Your task to perform on an android device: move an email to a new category in the gmail app Image 0: 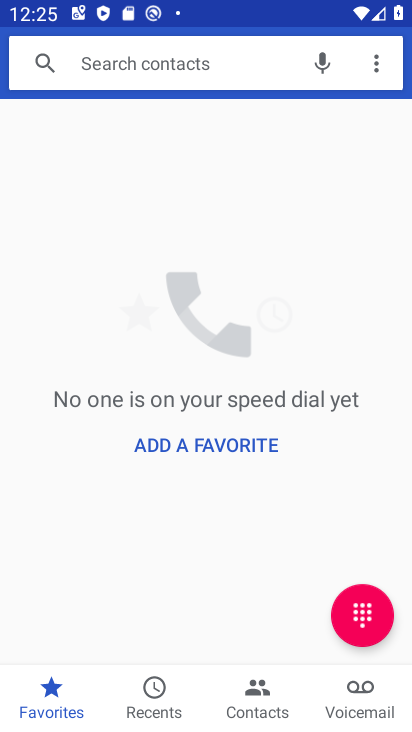
Step 0: press home button
Your task to perform on an android device: move an email to a new category in the gmail app Image 1: 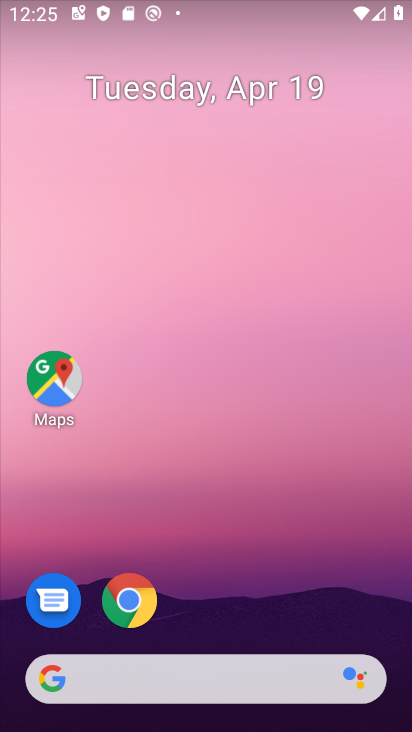
Step 1: drag from (222, 641) to (199, 36)
Your task to perform on an android device: move an email to a new category in the gmail app Image 2: 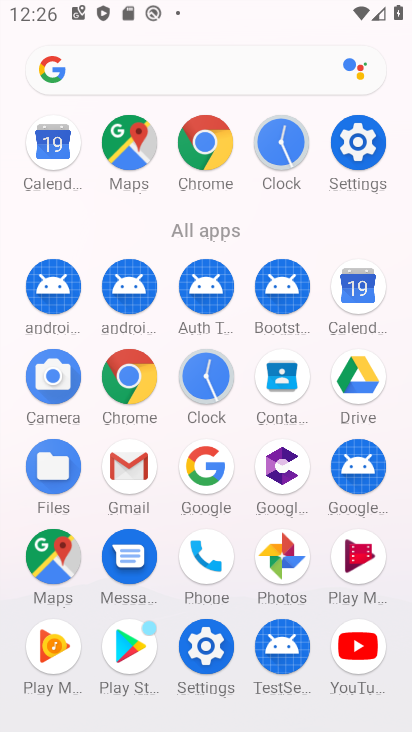
Step 2: click (133, 469)
Your task to perform on an android device: move an email to a new category in the gmail app Image 3: 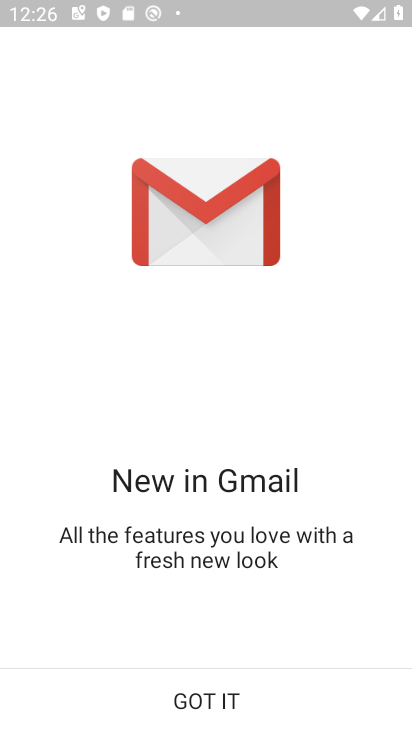
Step 3: click (193, 693)
Your task to perform on an android device: move an email to a new category in the gmail app Image 4: 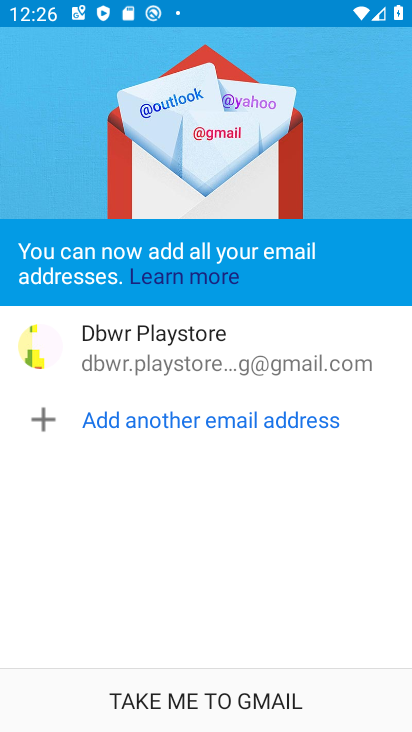
Step 4: click (189, 690)
Your task to perform on an android device: move an email to a new category in the gmail app Image 5: 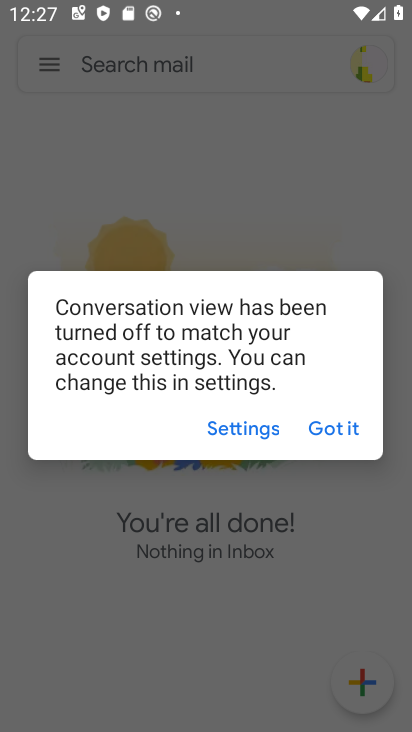
Step 5: click (322, 430)
Your task to perform on an android device: move an email to a new category in the gmail app Image 6: 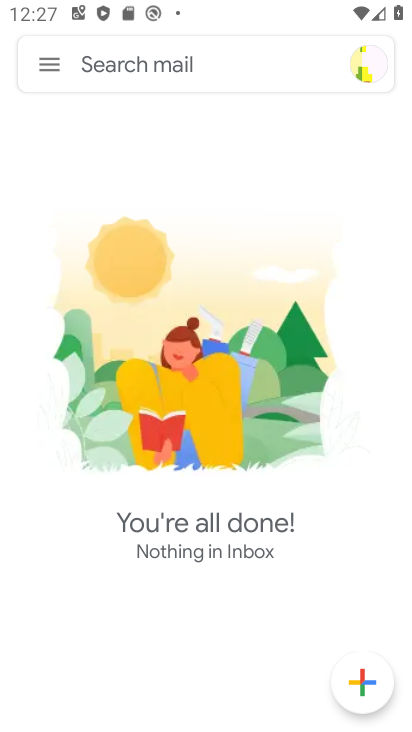
Step 6: click (49, 53)
Your task to perform on an android device: move an email to a new category in the gmail app Image 7: 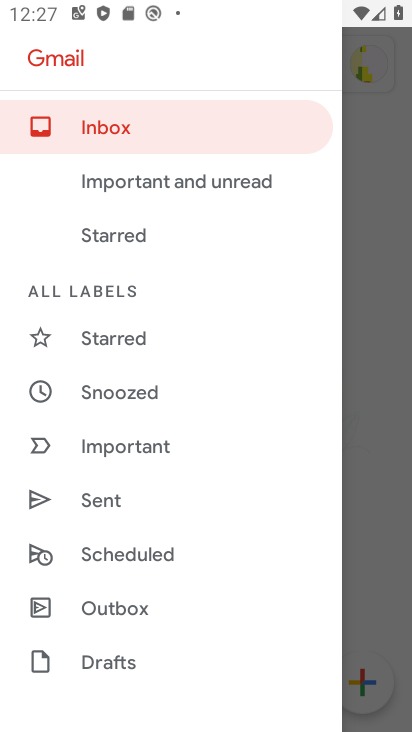
Step 7: task complete